Your task to perform on an android device: See recent photos Image 0: 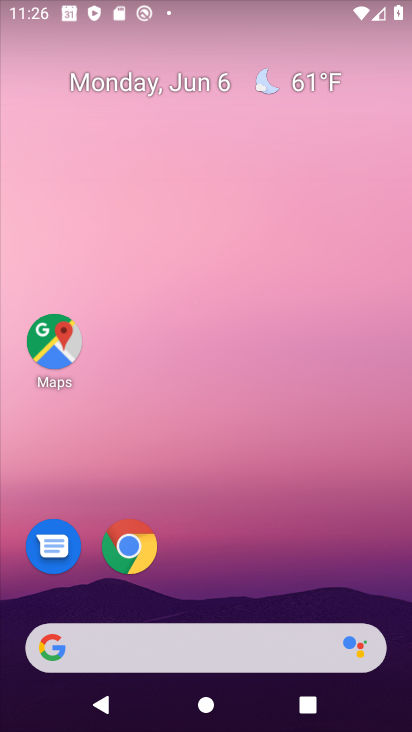
Step 0: drag from (213, 573) to (321, 69)
Your task to perform on an android device: See recent photos Image 1: 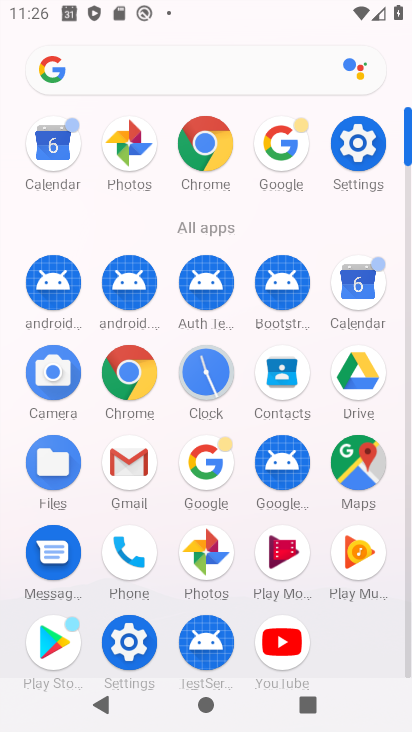
Step 1: click (207, 555)
Your task to perform on an android device: See recent photos Image 2: 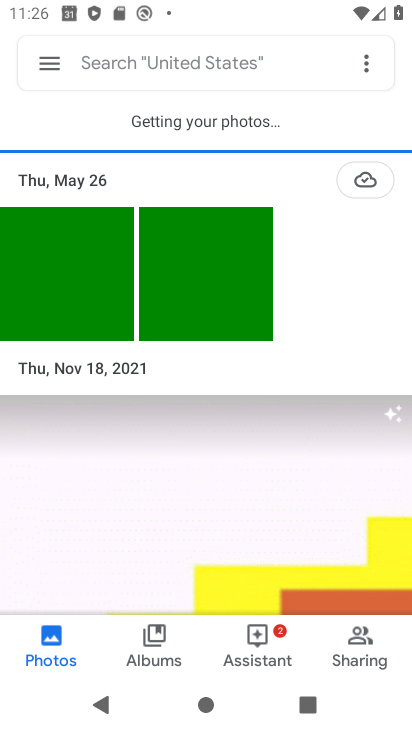
Step 2: click (56, 644)
Your task to perform on an android device: See recent photos Image 3: 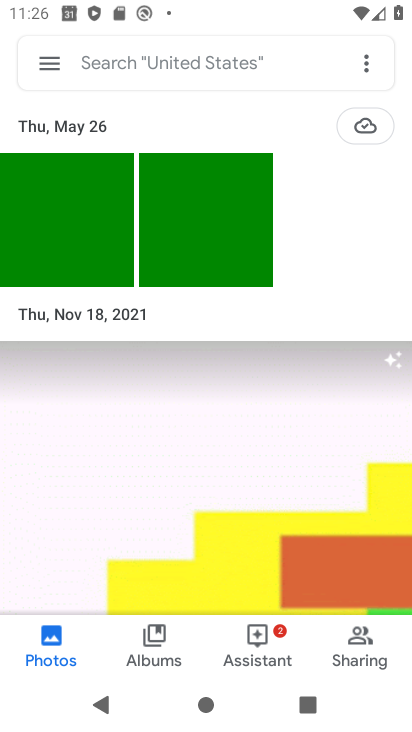
Step 3: click (66, 654)
Your task to perform on an android device: See recent photos Image 4: 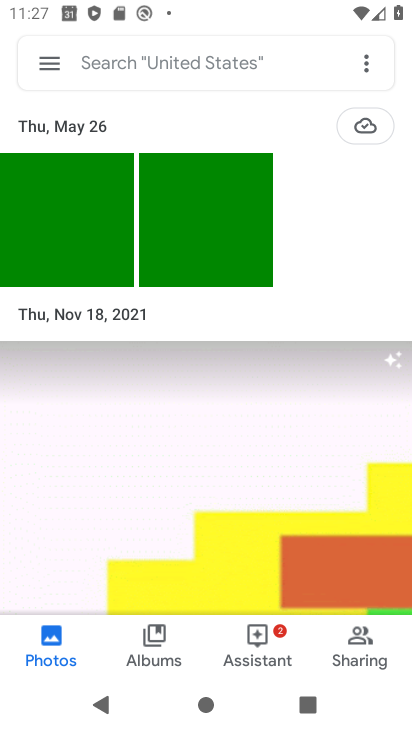
Step 4: task complete